Your task to perform on an android device: Open Google Chrome Image 0: 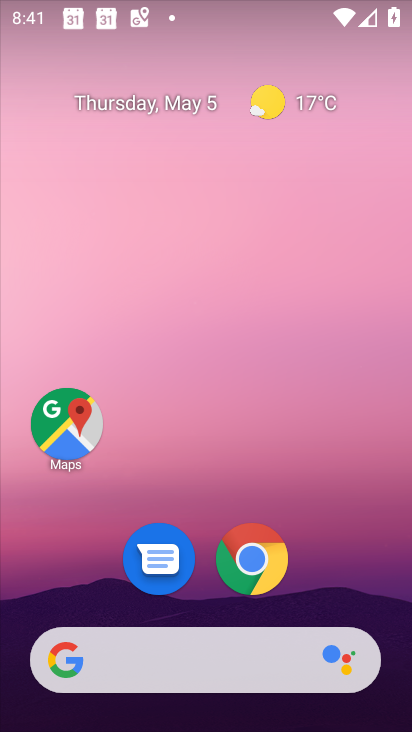
Step 0: click (249, 566)
Your task to perform on an android device: Open Google Chrome Image 1: 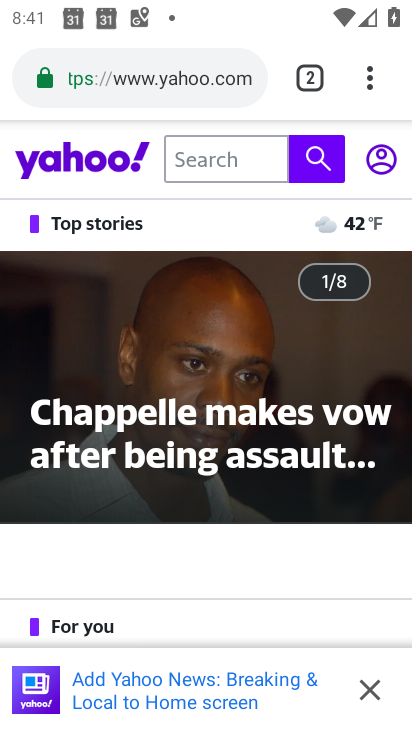
Step 1: task complete